Your task to perform on an android device: toggle sleep mode Image 0: 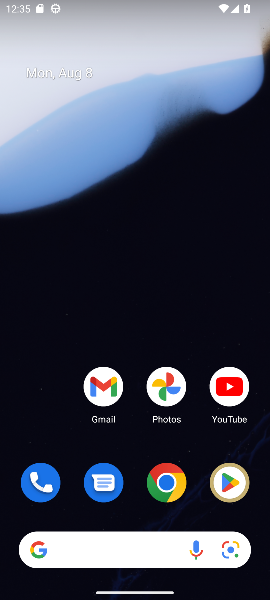
Step 0: drag from (130, 545) to (80, 46)
Your task to perform on an android device: toggle sleep mode Image 1: 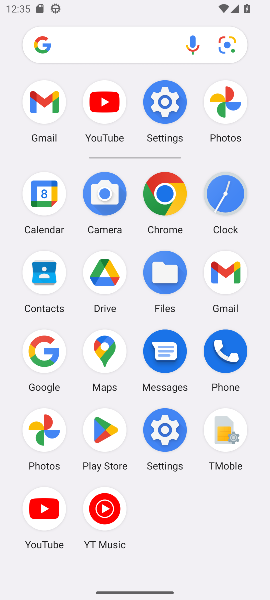
Step 1: click (173, 99)
Your task to perform on an android device: toggle sleep mode Image 2: 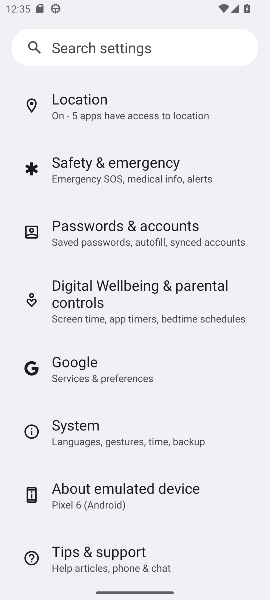
Step 2: task complete